Your task to perform on an android device: open app "Nova Launcher" (install if not already installed) and enter user name: "haggard@gmail.com" and password: "sadder" Image 0: 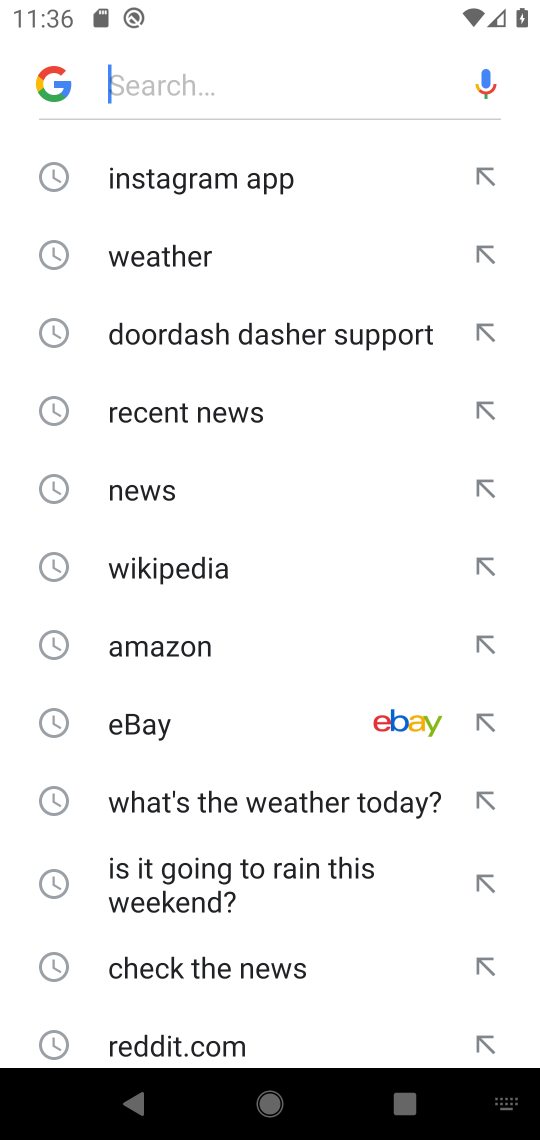
Step 0: press home button
Your task to perform on an android device: open app "Nova Launcher" (install if not already installed) and enter user name: "haggard@gmail.com" and password: "sadder" Image 1: 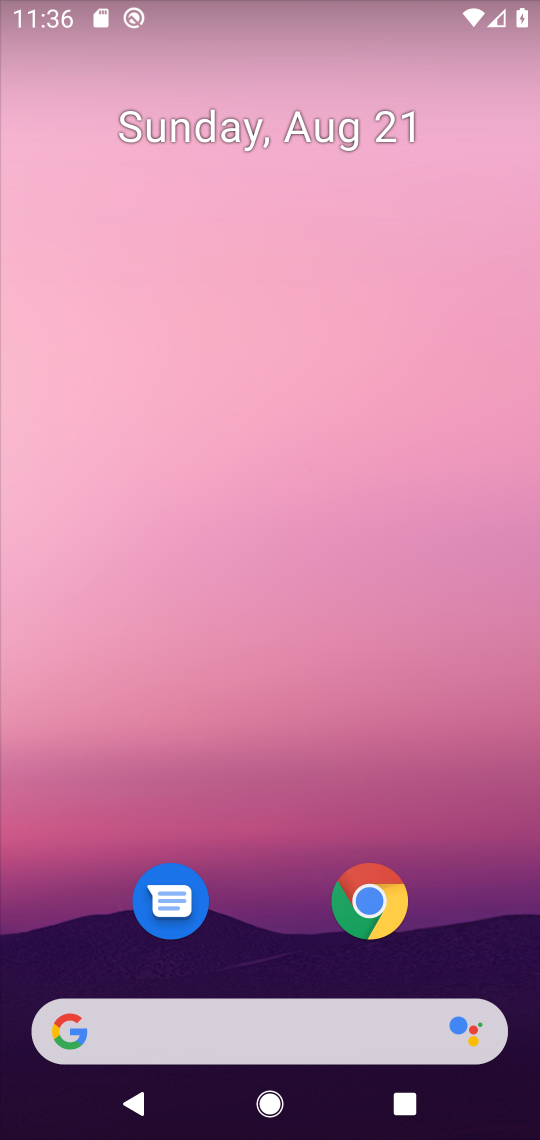
Step 1: drag from (262, 994) to (293, 158)
Your task to perform on an android device: open app "Nova Launcher" (install if not already installed) and enter user name: "haggard@gmail.com" and password: "sadder" Image 2: 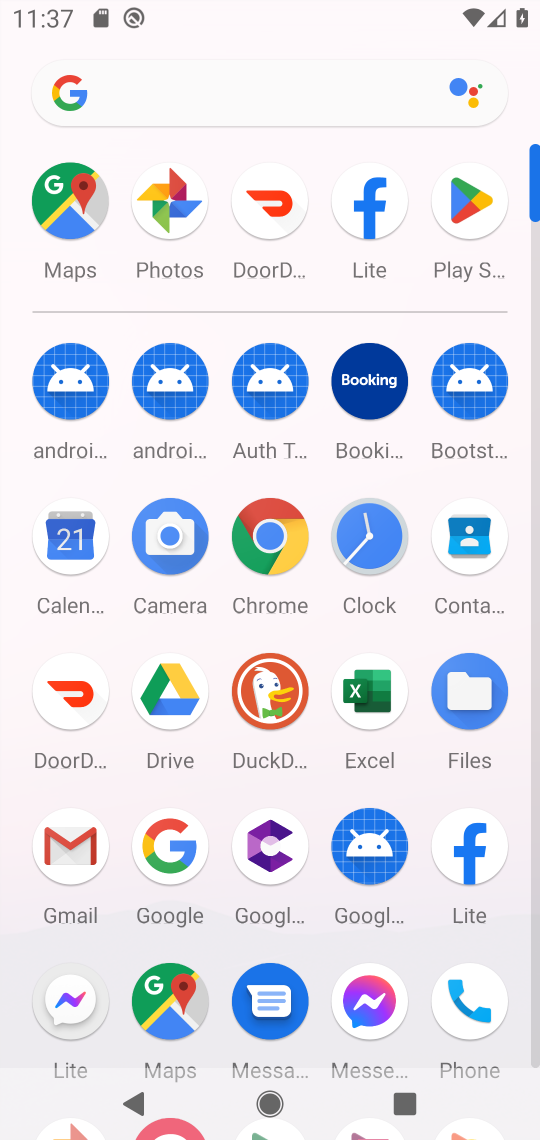
Step 2: click (471, 238)
Your task to perform on an android device: open app "Nova Launcher" (install if not already installed) and enter user name: "haggard@gmail.com" and password: "sadder" Image 3: 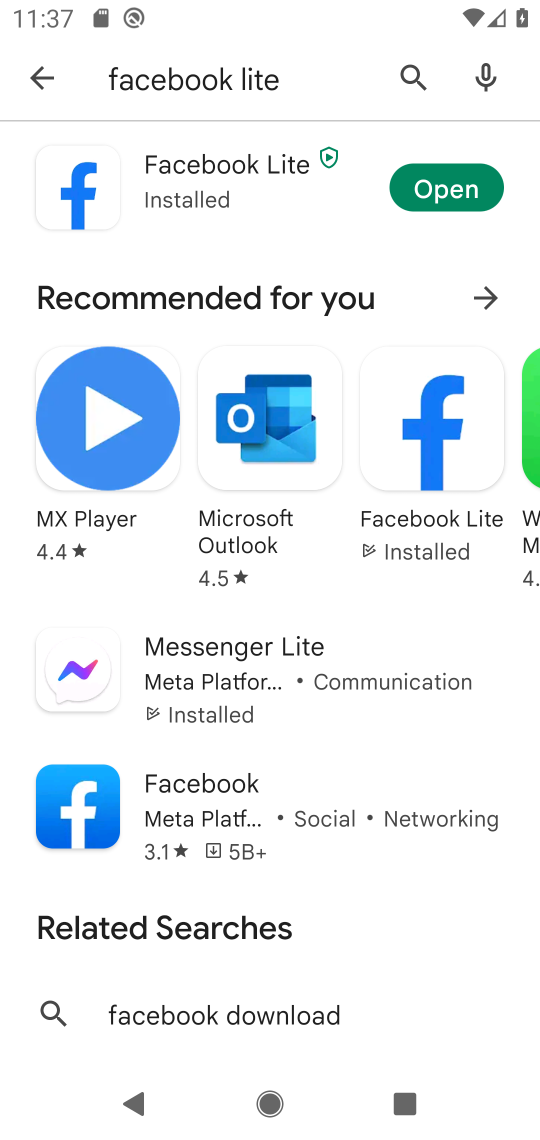
Step 3: click (393, 78)
Your task to perform on an android device: open app "Nova Launcher" (install if not already installed) and enter user name: "haggard@gmail.com" and password: "sadder" Image 4: 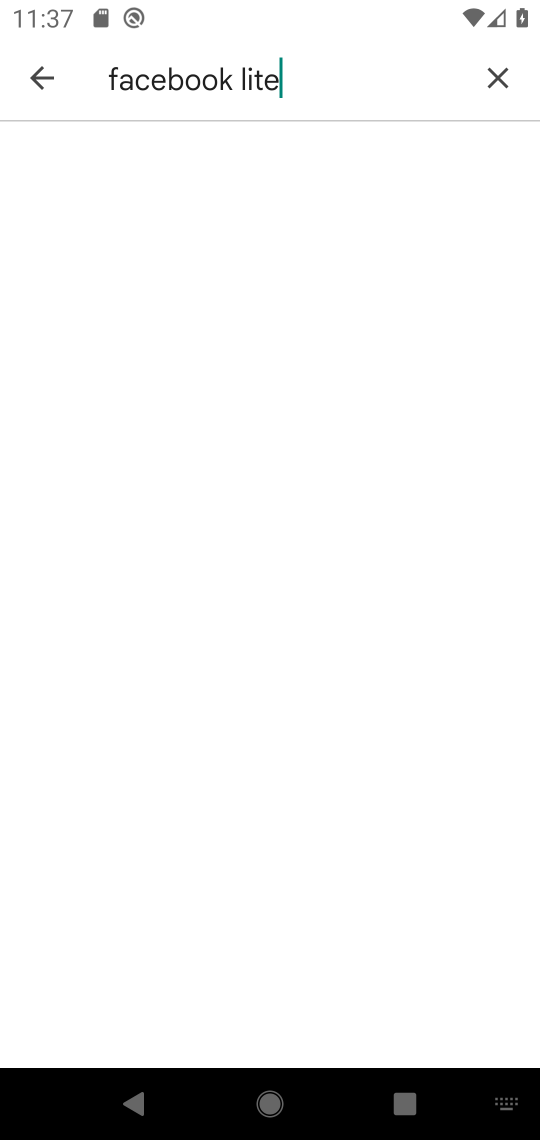
Step 4: click (473, 78)
Your task to perform on an android device: open app "Nova Launcher" (install if not already installed) and enter user name: "haggard@gmail.com" and password: "sadder" Image 5: 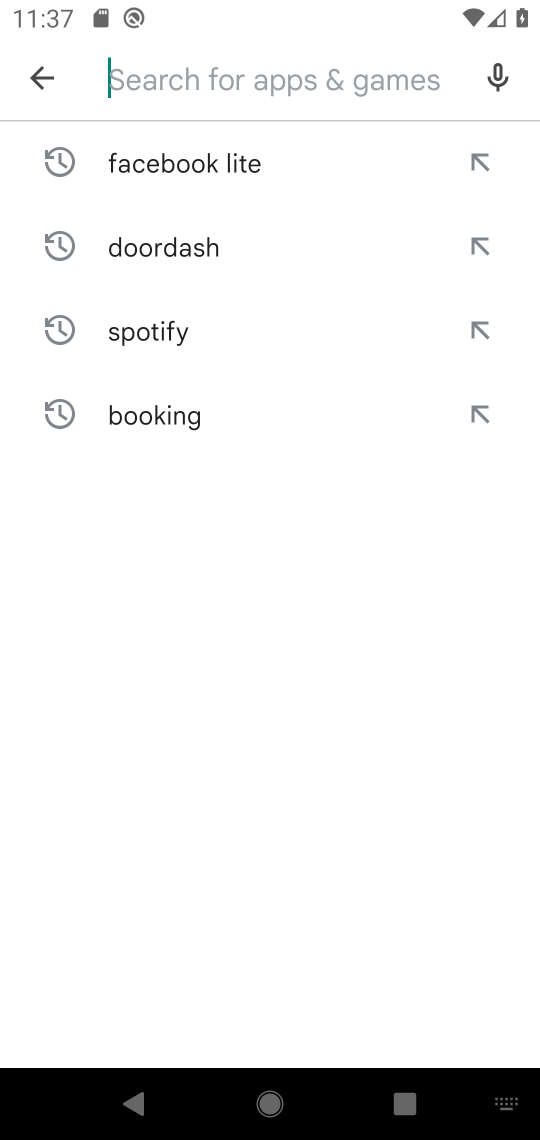
Step 5: type "nova "
Your task to perform on an android device: open app "Nova Launcher" (install if not already installed) and enter user name: "haggard@gmail.com" and password: "sadder" Image 6: 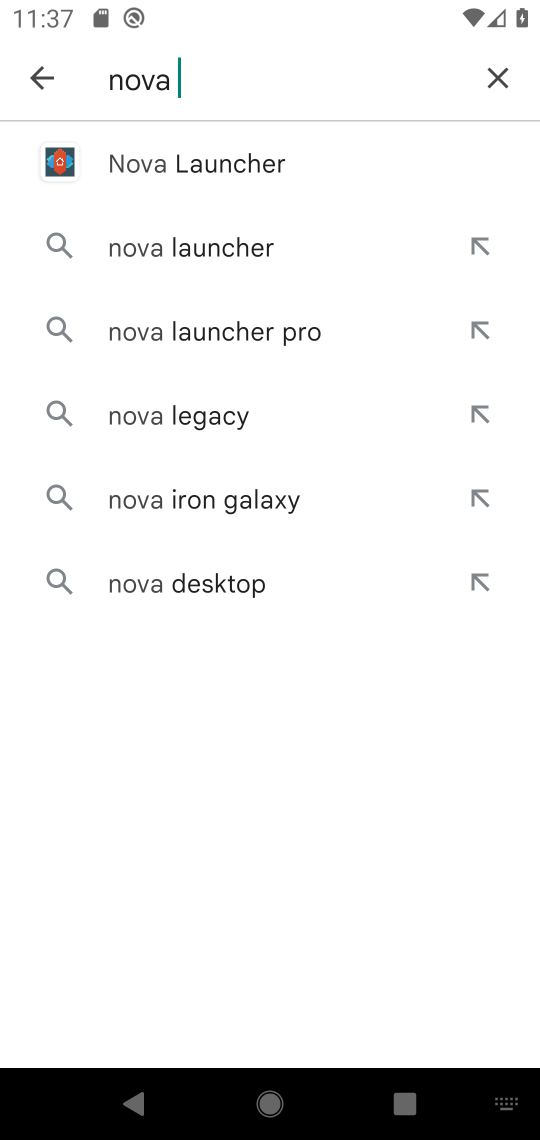
Step 6: click (199, 183)
Your task to perform on an android device: open app "Nova Launcher" (install if not already installed) and enter user name: "haggard@gmail.com" and password: "sadder" Image 7: 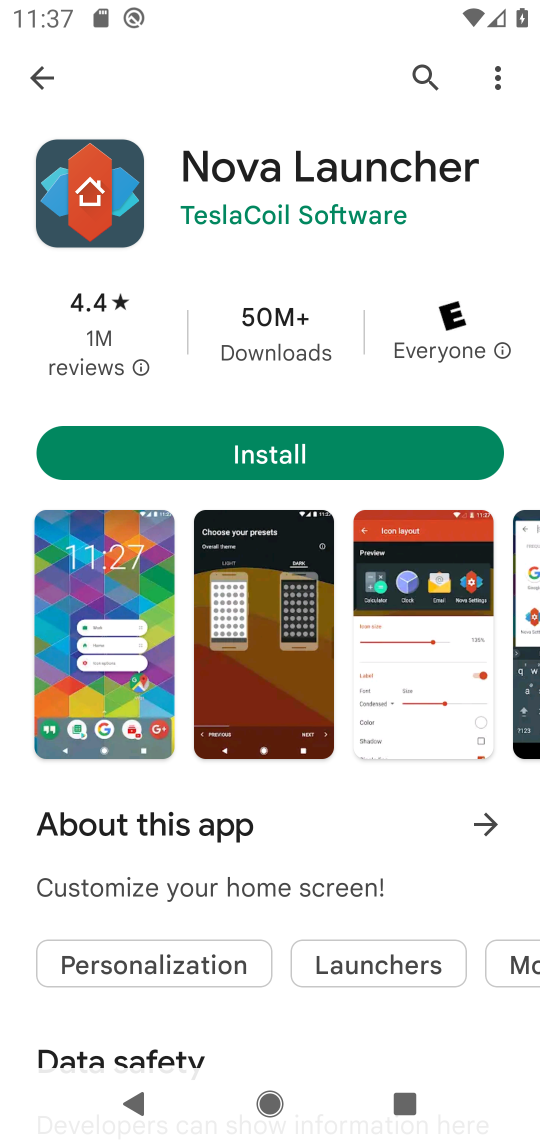
Step 7: click (191, 437)
Your task to perform on an android device: open app "Nova Launcher" (install if not already installed) and enter user name: "haggard@gmail.com" and password: "sadder" Image 8: 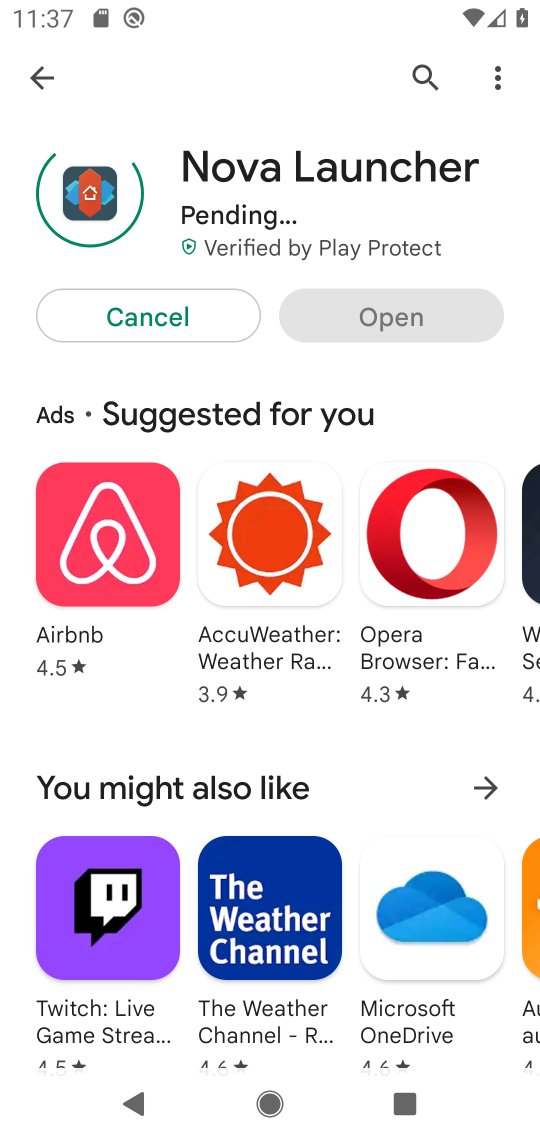
Step 8: task complete